Your task to perform on an android device: Open display settings Image 0: 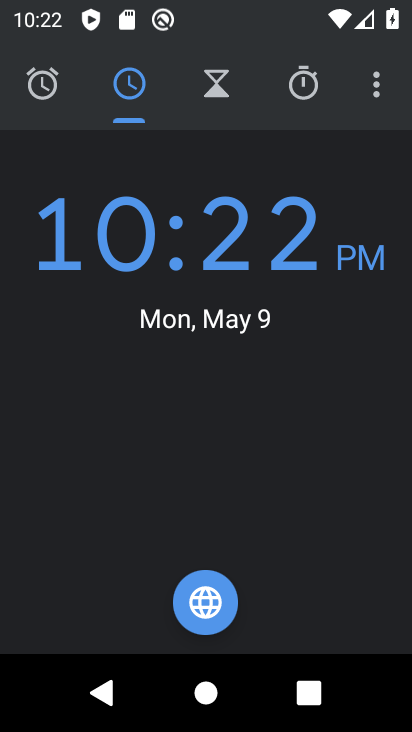
Step 0: press home button
Your task to perform on an android device: Open display settings Image 1: 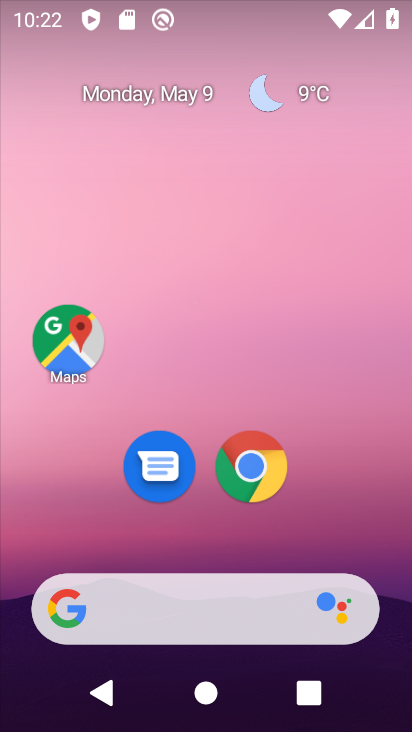
Step 1: drag from (359, 519) to (325, 97)
Your task to perform on an android device: Open display settings Image 2: 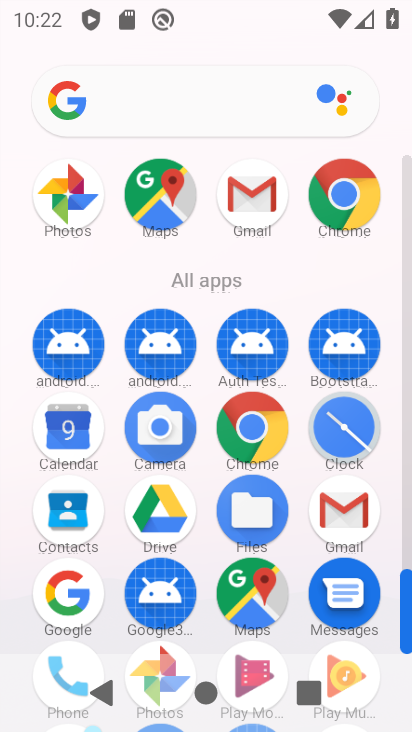
Step 2: drag from (209, 274) to (195, 95)
Your task to perform on an android device: Open display settings Image 3: 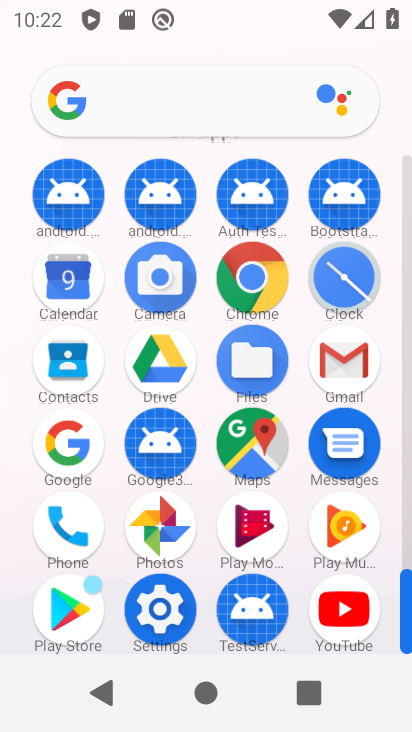
Step 3: click (177, 612)
Your task to perform on an android device: Open display settings Image 4: 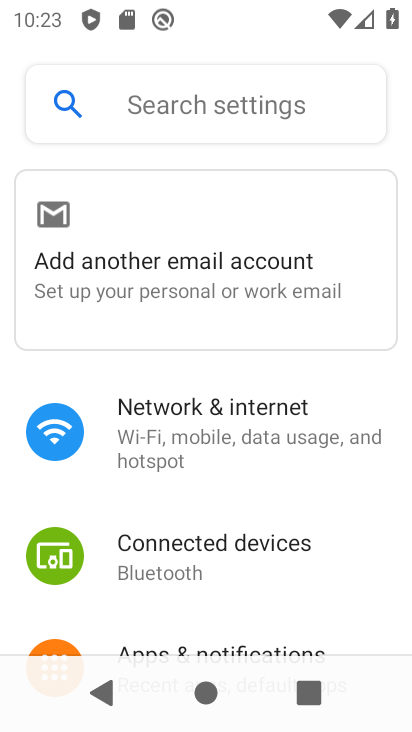
Step 4: drag from (202, 574) to (172, 264)
Your task to perform on an android device: Open display settings Image 5: 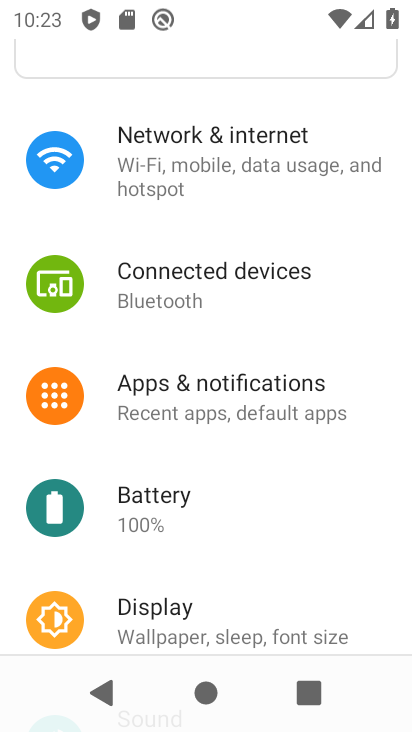
Step 5: click (163, 623)
Your task to perform on an android device: Open display settings Image 6: 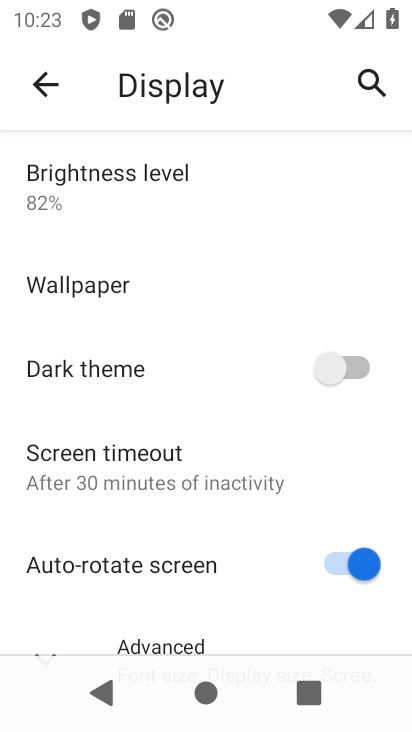
Step 6: task complete